Your task to perform on an android device: Go to Google Image 0: 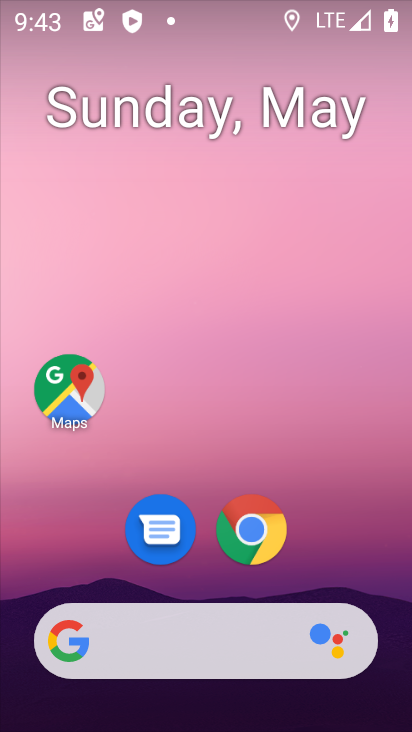
Step 0: click (235, 630)
Your task to perform on an android device: Go to Google Image 1: 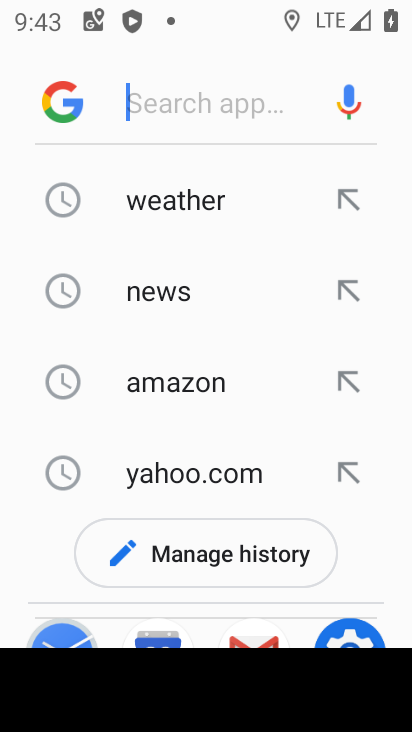
Step 1: type "google.com"
Your task to perform on an android device: Go to Google Image 2: 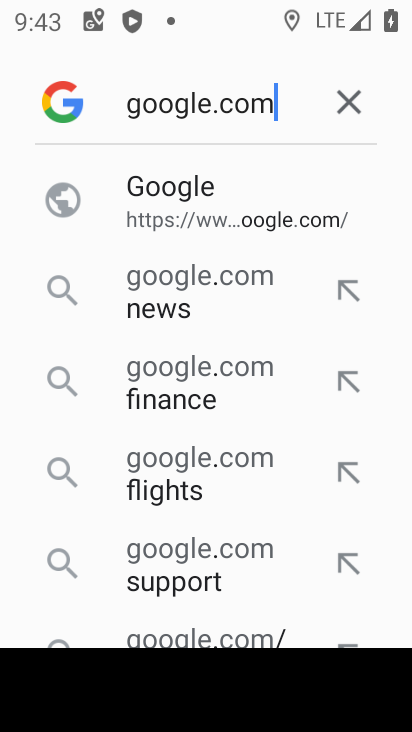
Step 2: click (152, 191)
Your task to perform on an android device: Go to Google Image 3: 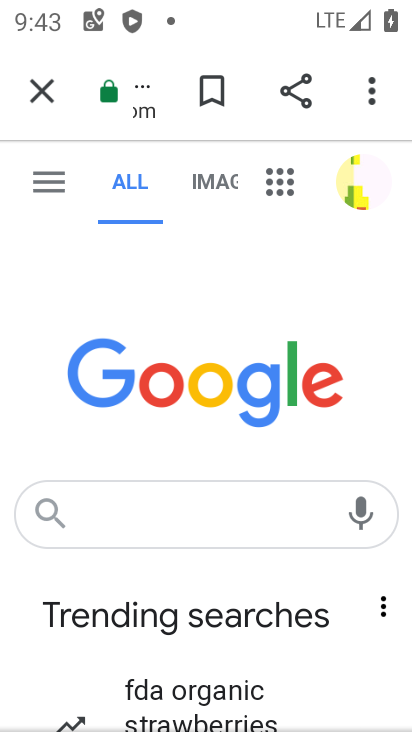
Step 3: task complete